Your task to perform on an android device: What's on my calendar tomorrow? Image 0: 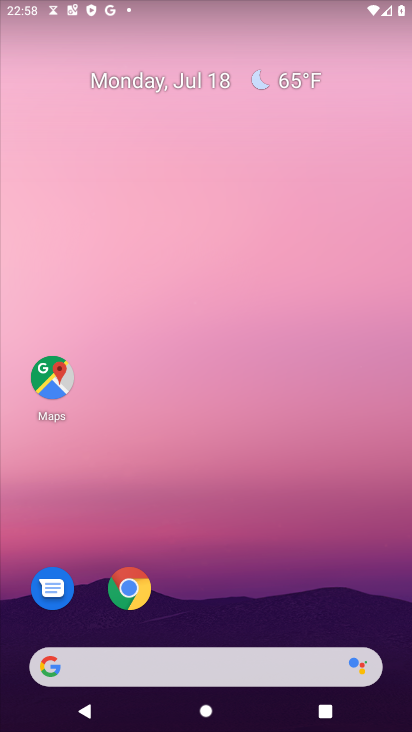
Step 0: drag from (174, 660) to (271, 159)
Your task to perform on an android device: What's on my calendar tomorrow? Image 1: 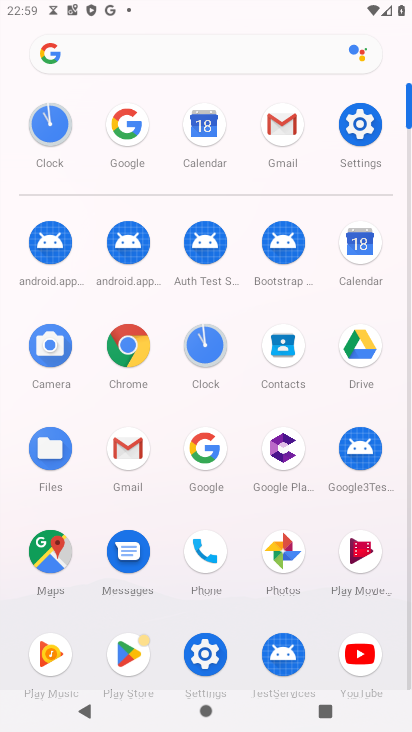
Step 1: click (359, 244)
Your task to perform on an android device: What's on my calendar tomorrow? Image 2: 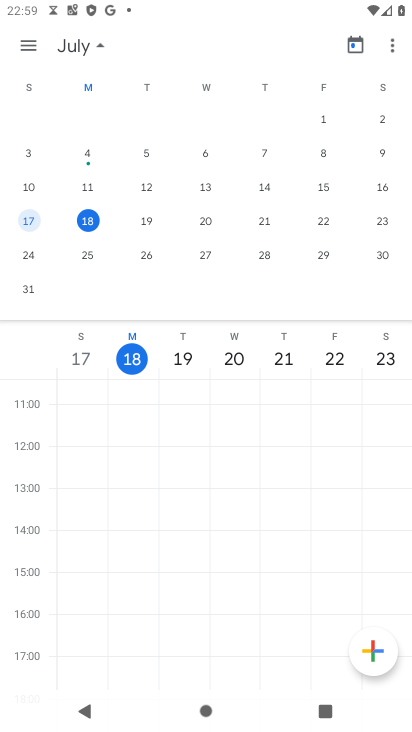
Step 2: click (357, 44)
Your task to perform on an android device: What's on my calendar tomorrow? Image 3: 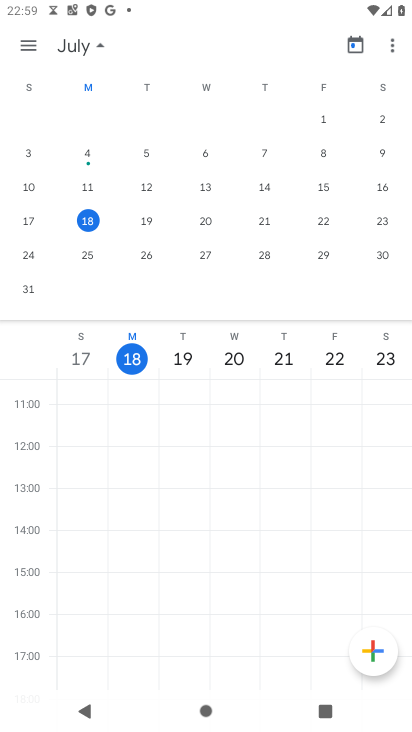
Step 3: click (154, 222)
Your task to perform on an android device: What's on my calendar tomorrow? Image 4: 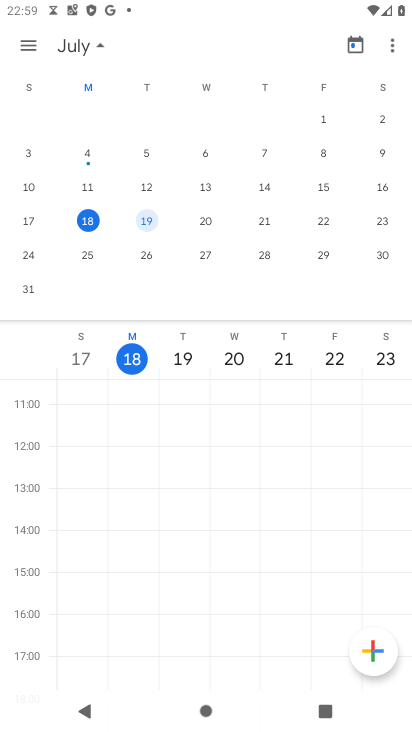
Step 4: click (28, 45)
Your task to perform on an android device: What's on my calendar tomorrow? Image 5: 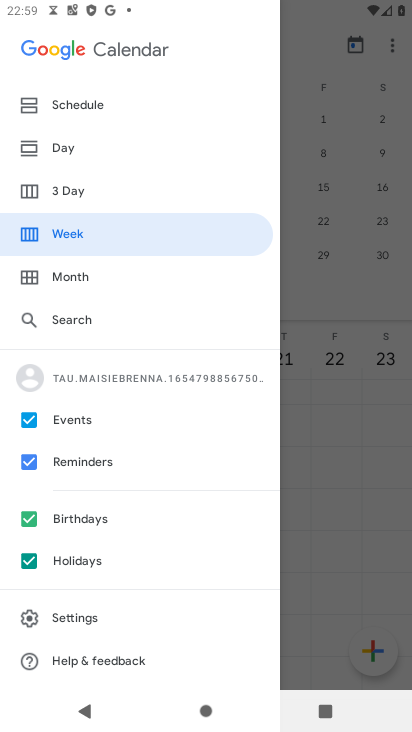
Step 5: click (60, 107)
Your task to perform on an android device: What's on my calendar tomorrow? Image 6: 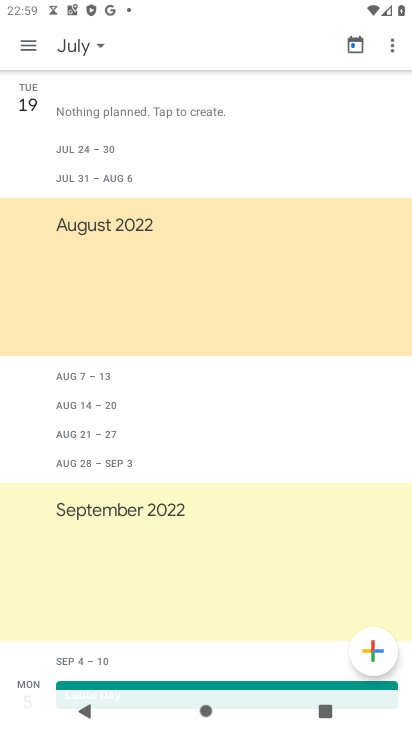
Step 6: task complete